Your task to perform on an android device: turn pop-ups off in chrome Image 0: 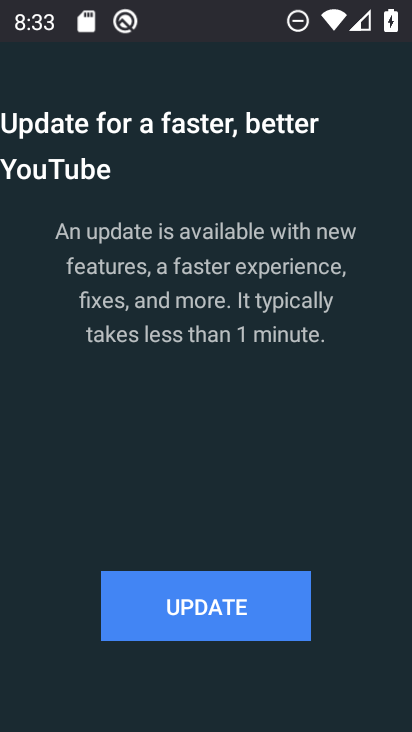
Step 0: press home button
Your task to perform on an android device: turn pop-ups off in chrome Image 1: 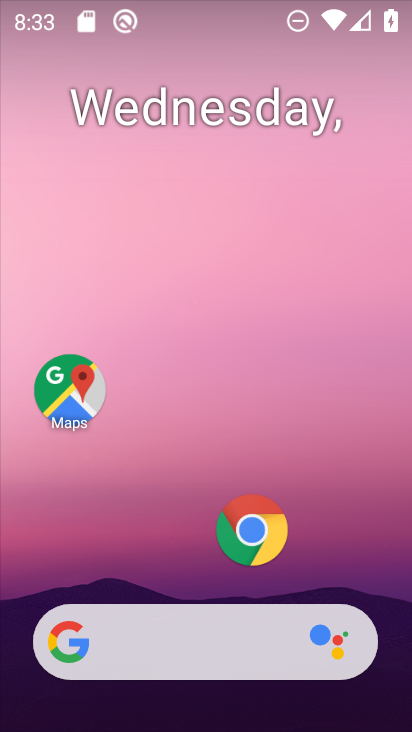
Step 1: click (264, 536)
Your task to perform on an android device: turn pop-ups off in chrome Image 2: 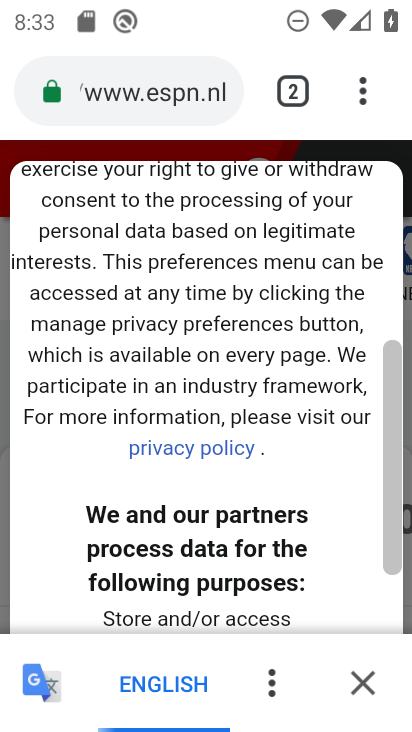
Step 2: drag from (368, 78) to (115, 557)
Your task to perform on an android device: turn pop-ups off in chrome Image 3: 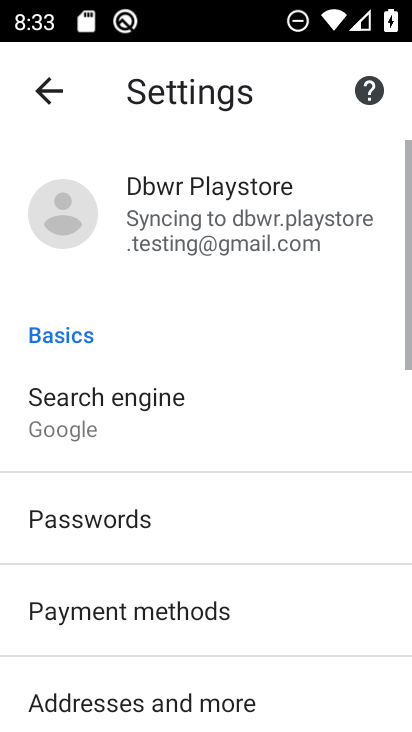
Step 3: drag from (161, 636) to (269, 82)
Your task to perform on an android device: turn pop-ups off in chrome Image 4: 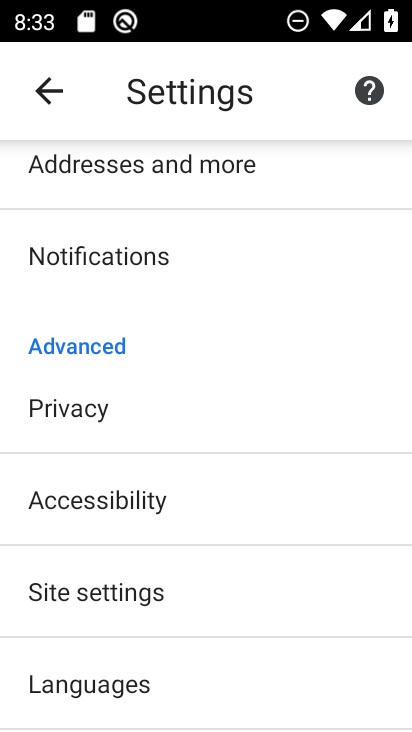
Step 4: click (159, 590)
Your task to perform on an android device: turn pop-ups off in chrome Image 5: 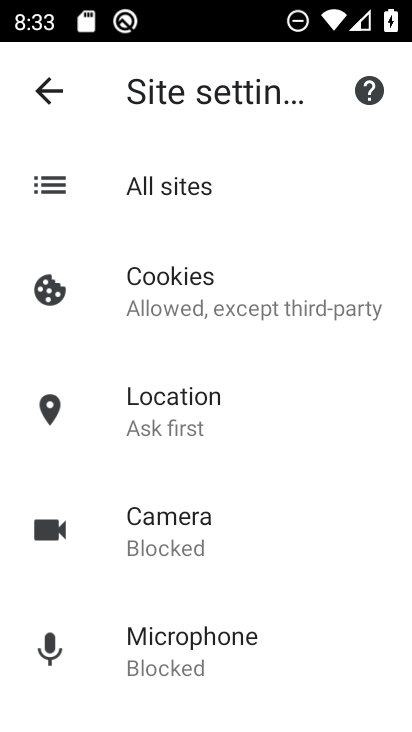
Step 5: drag from (224, 649) to (286, 115)
Your task to perform on an android device: turn pop-ups off in chrome Image 6: 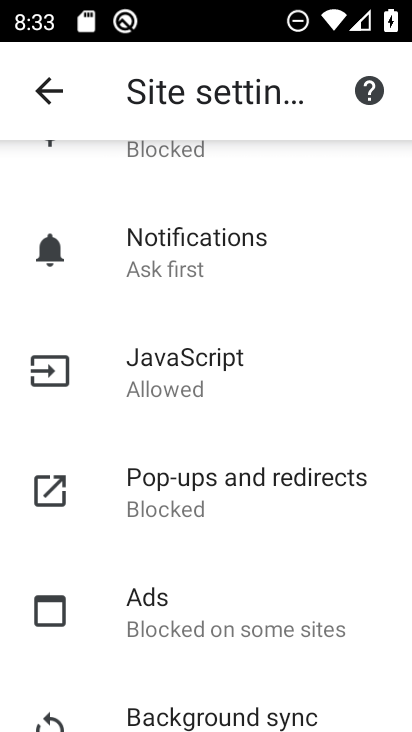
Step 6: click (152, 487)
Your task to perform on an android device: turn pop-ups off in chrome Image 7: 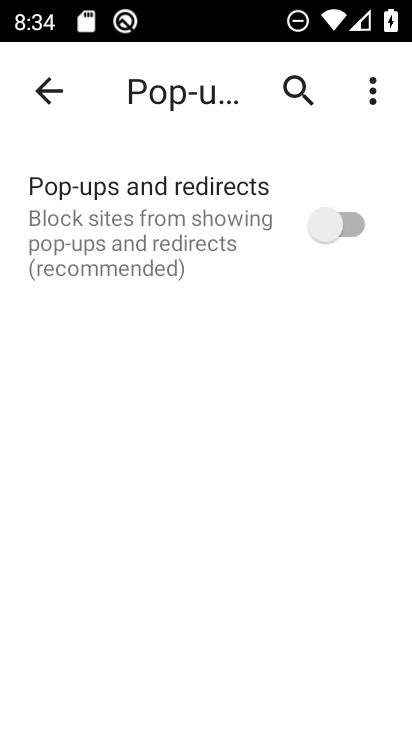
Step 7: task complete